Your task to perform on an android device: check out phone information Image 0: 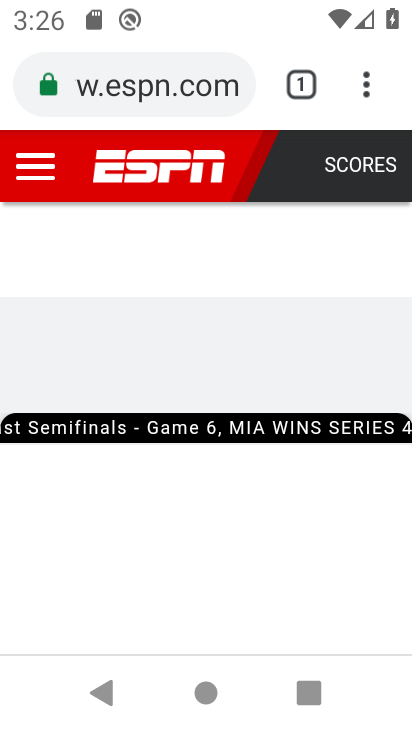
Step 0: press home button
Your task to perform on an android device: check out phone information Image 1: 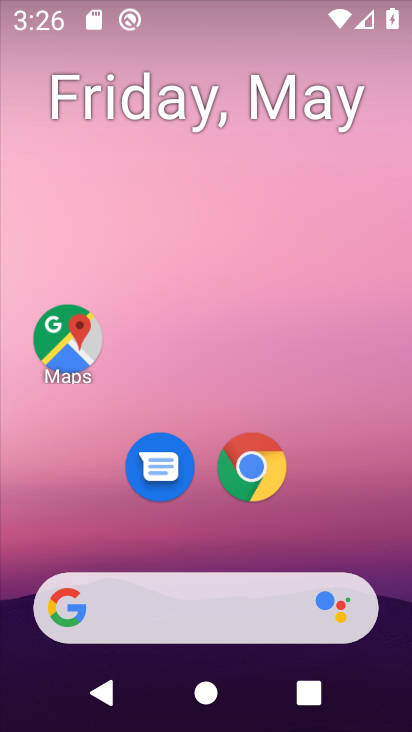
Step 1: drag from (342, 537) to (281, 106)
Your task to perform on an android device: check out phone information Image 2: 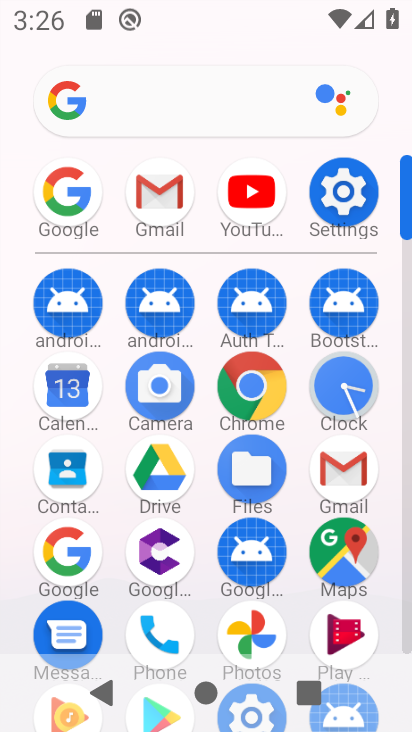
Step 2: click (348, 209)
Your task to perform on an android device: check out phone information Image 3: 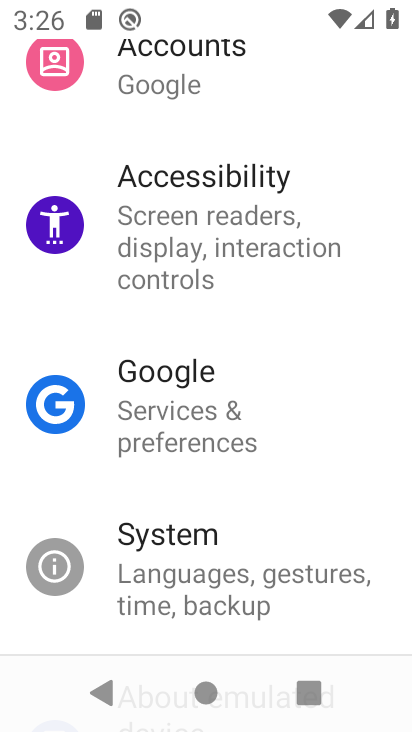
Step 3: drag from (228, 603) to (269, 280)
Your task to perform on an android device: check out phone information Image 4: 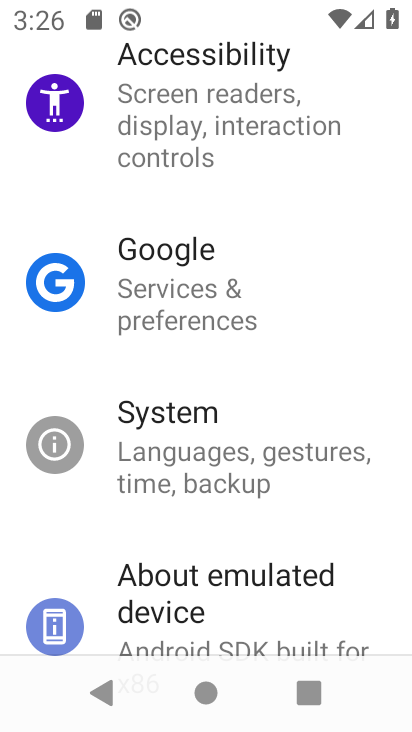
Step 4: click (210, 575)
Your task to perform on an android device: check out phone information Image 5: 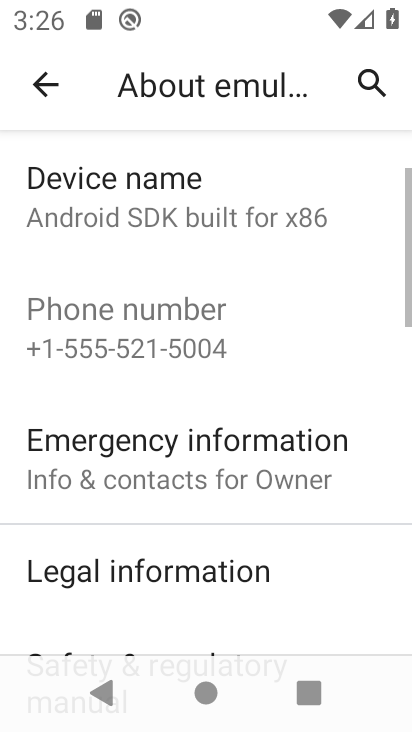
Step 5: task complete